Your task to perform on an android device: Open notification settings Image 0: 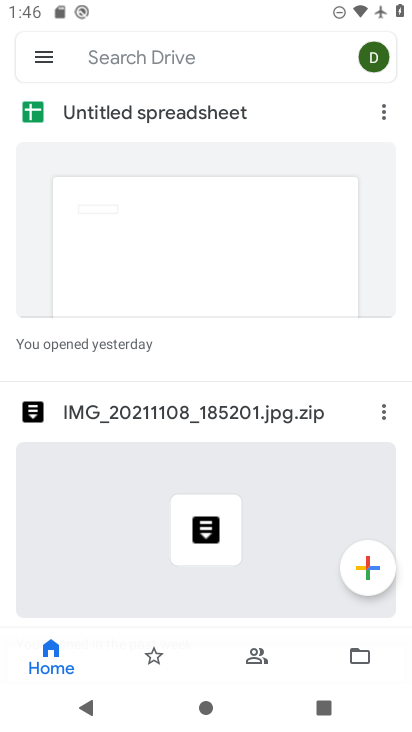
Step 0: press home button
Your task to perform on an android device: Open notification settings Image 1: 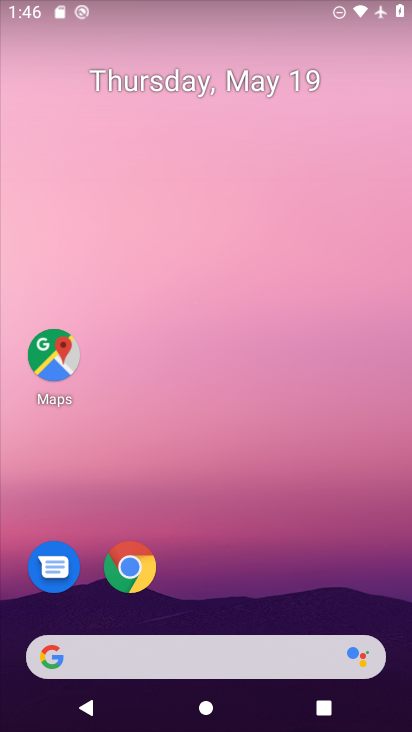
Step 1: drag from (250, 516) to (246, 33)
Your task to perform on an android device: Open notification settings Image 2: 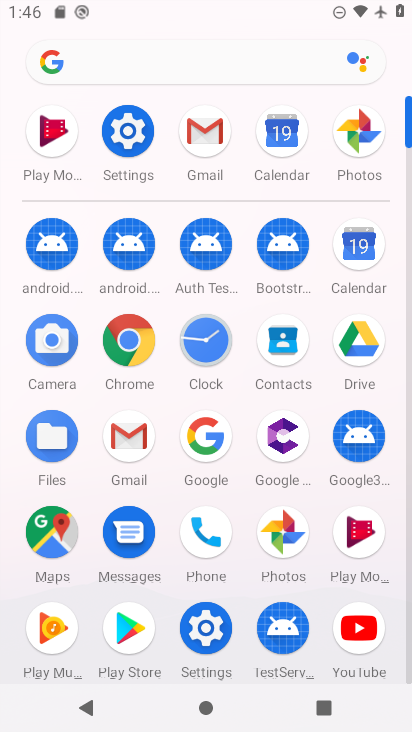
Step 2: click (132, 130)
Your task to perform on an android device: Open notification settings Image 3: 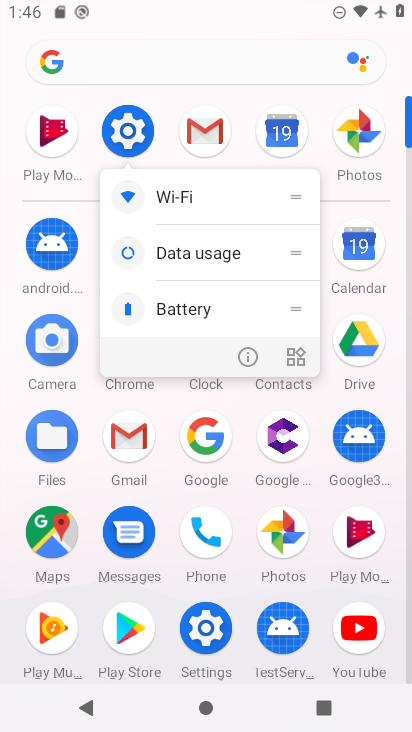
Step 3: click (132, 129)
Your task to perform on an android device: Open notification settings Image 4: 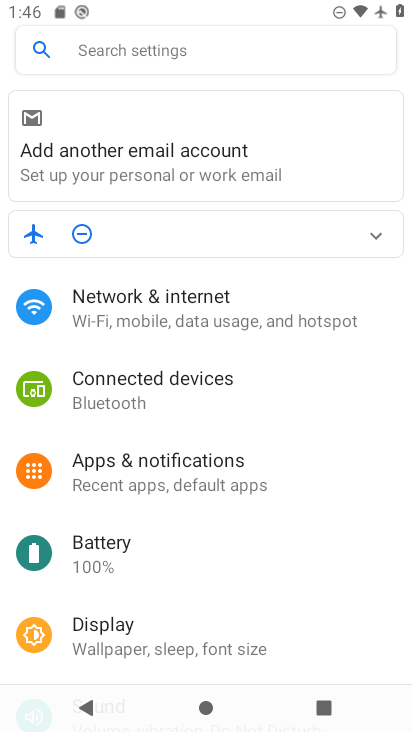
Step 4: drag from (199, 544) to (221, 367)
Your task to perform on an android device: Open notification settings Image 5: 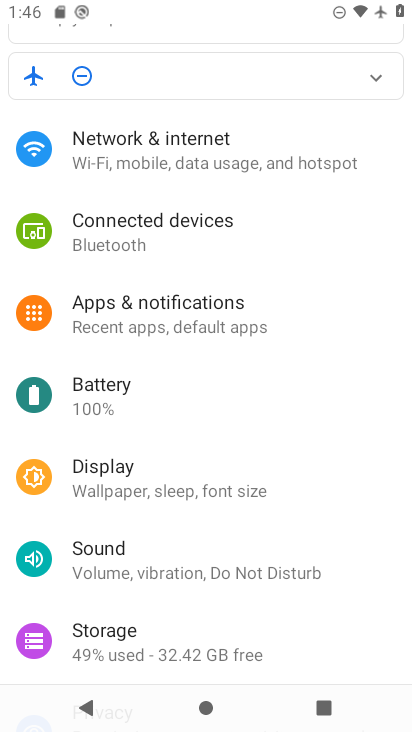
Step 5: click (221, 318)
Your task to perform on an android device: Open notification settings Image 6: 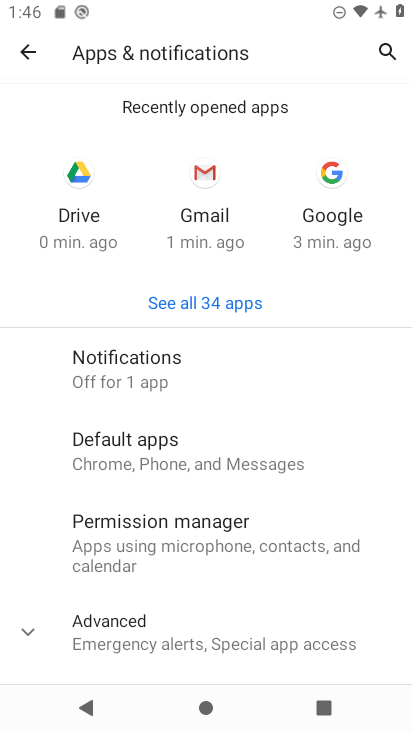
Step 6: click (218, 362)
Your task to perform on an android device: Open notification settings Image 7: 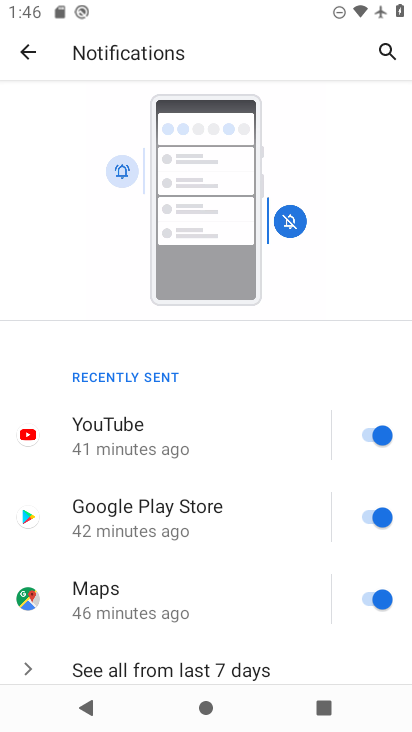
Step 7: task complete